Your task to perform on an android device: Go to Google Image 0: 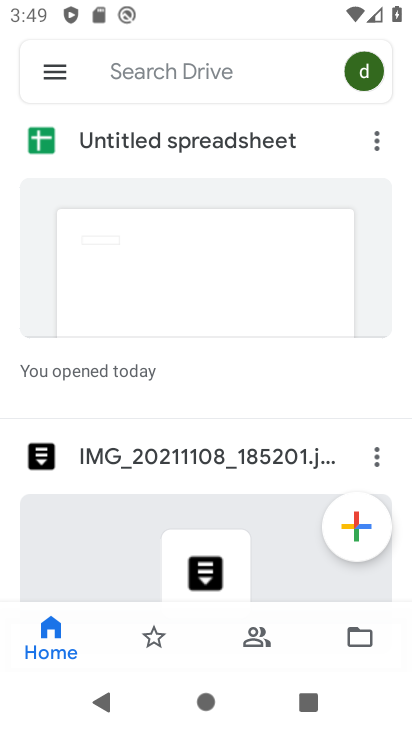
Step 0: press home button
Your task to perform on an android device: Go to Google Image 1: 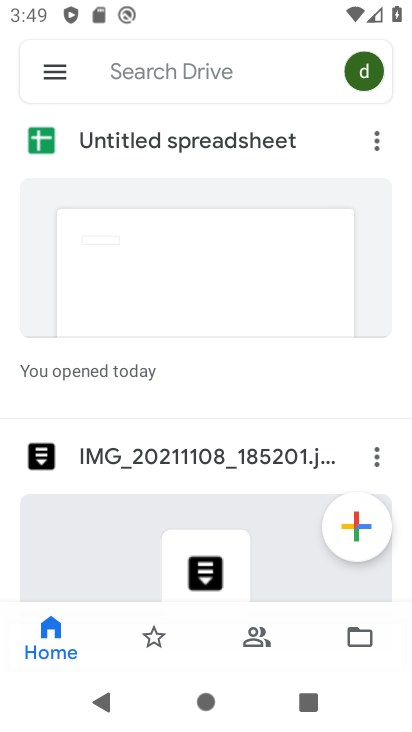
Step 1: press home button
Your task to perform on an android device: Go to Google Image 2: 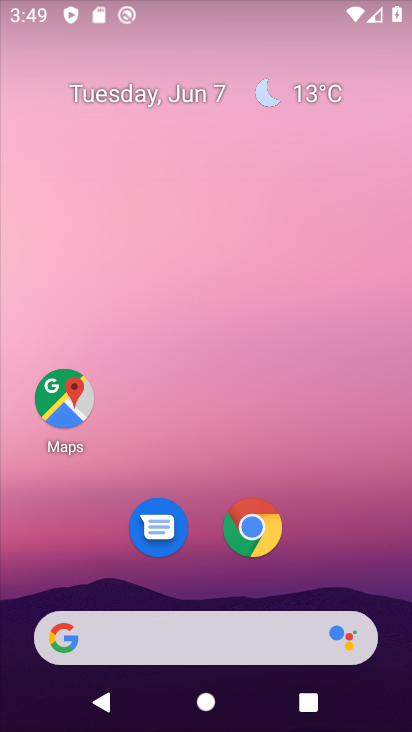
Step 2: press home button
Your task to perform on an android device: Go to Google Image 3: 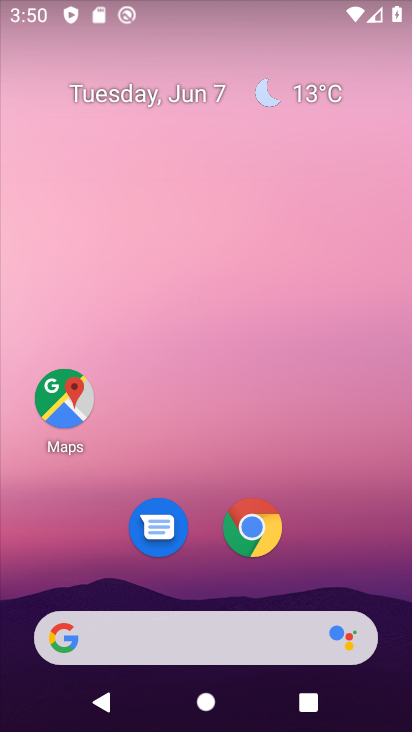
Step 3: click (250, 533)
Your task to perform on an android device: Go to Google Image 4: 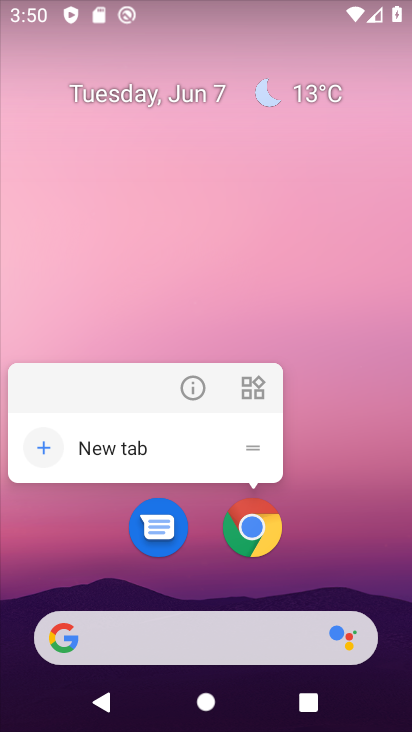
Step 4: click (250, 533)
Your task to perform on an android device: Go to Google Image 5: 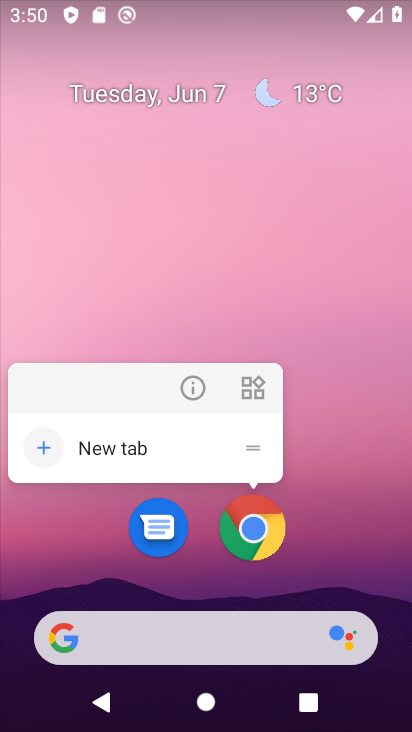
Step 5: click (250, 533)
Your task to perform on an android device: Go to Google Image 6: 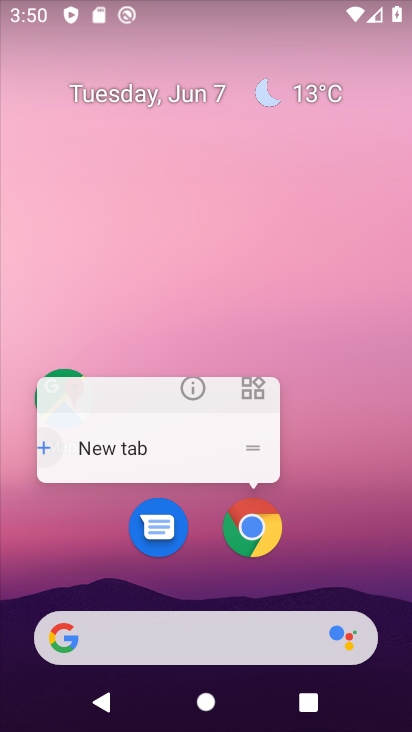
Step 6: click (250, 533)
Your task to perform on an android device: Go to Google Image 7: 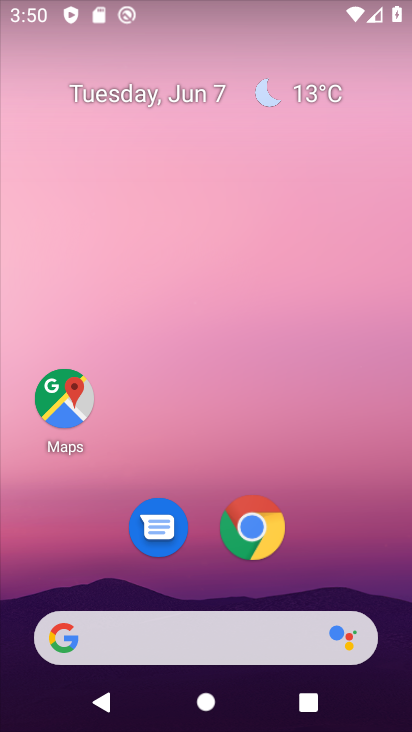
Step 7: click (250, 533)
Your task to perform on an android device: Go to Google Image 8: 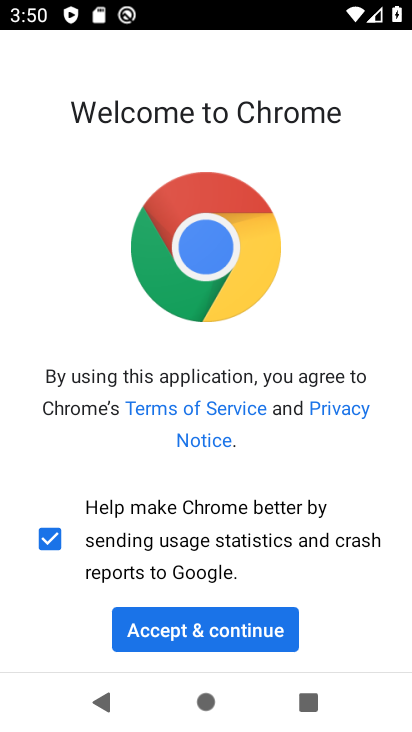
Step 8: click (210, 618)
Your task to perform on an android device: Go to Google Image 9: 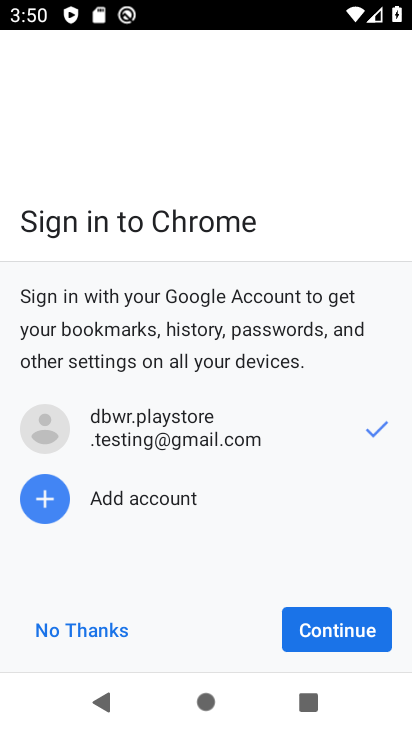
Step 9: click (125, 617)
Your task to perform on an android device: Go to Google Image 10: 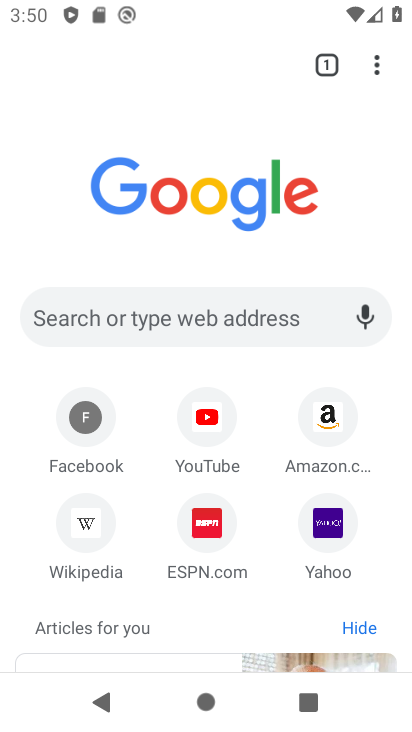
Step 10: click (187, 316)
Your task to perform on an android device: Go to Google Image 11: 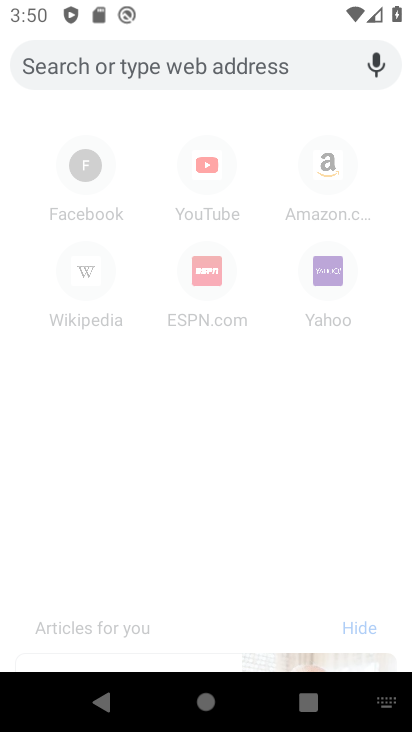
Step 11: type "www.google.com"
Your task to perform on an android device: Go to Google Image 12: 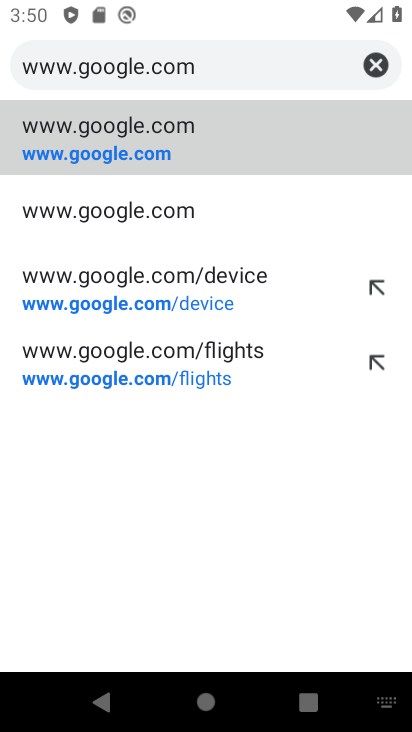
Step 12: click (180, 130)
Your task to perform on an android device: Go to Google Image 13: 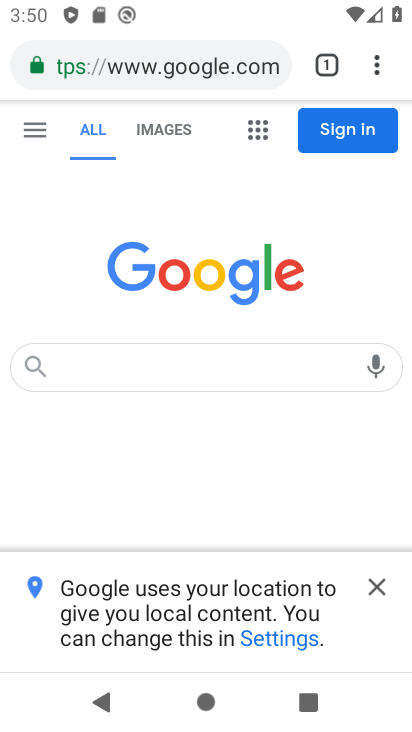
Step 13: task complete